Your task to perform on an android device: turn on notifications settings in the gmail app Image 0: 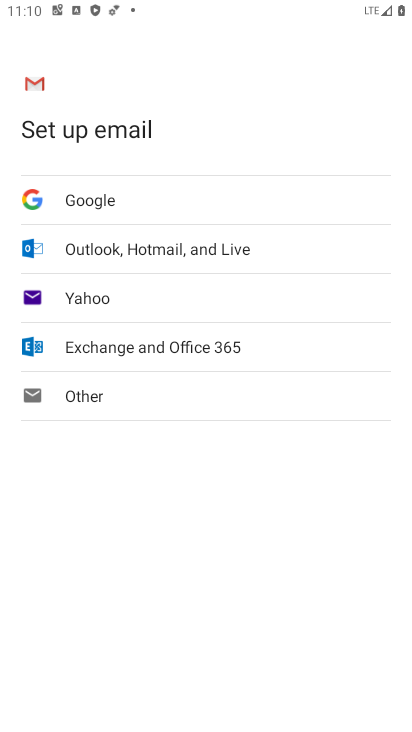
Step 0: press home button
Your task to perform on an android device: turn on notifications settings in the gmail app Image 1: 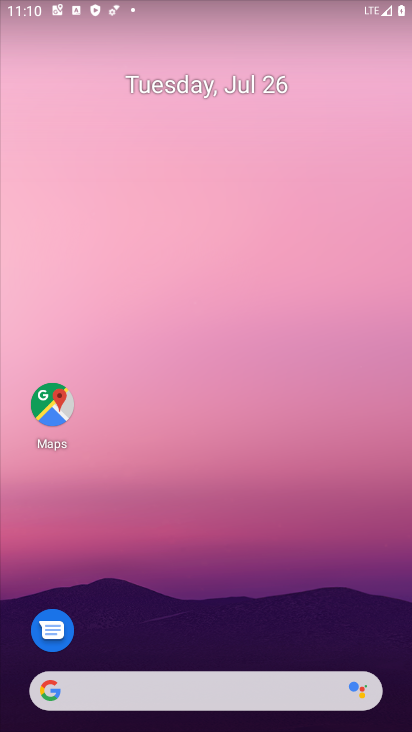
Step 1: drag from (302, 512) to (288, 37)
Your task to perform on an android device: turn on notifications settings in the gmail app Image 2: 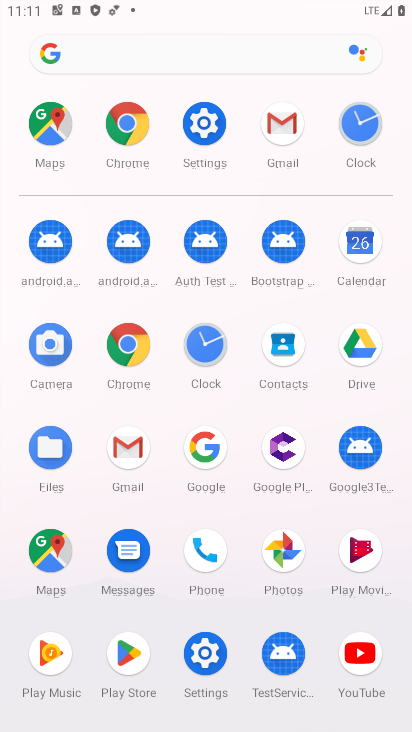
Step 2: click (275, 138)
Your task to perform on an android device: turn on notifications settings in the gmail app Image 3: 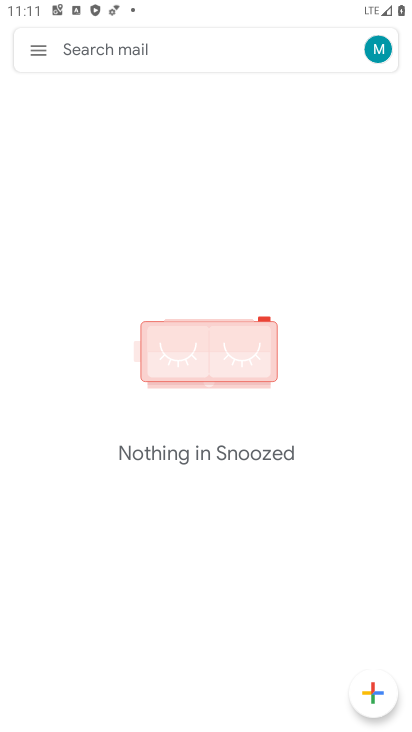
Step 3: click (55, 76)
Your task to perform on an android device: turn on notifications settings in the gmail app Image 4: 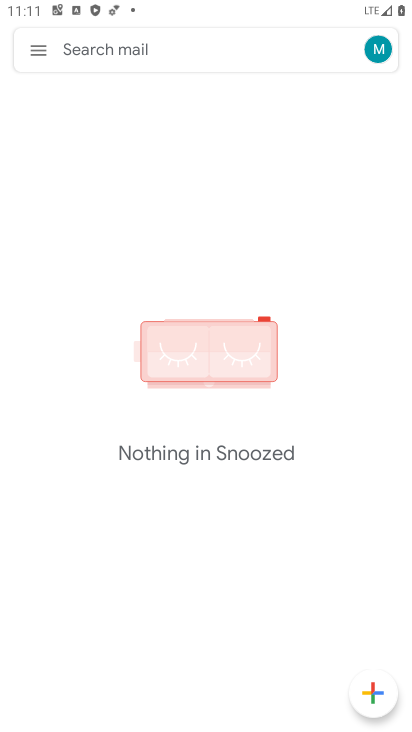
Step 4: click (55, 53)
Your task to perform on an android device: turn on notifications settings in the gmail app Image 5: 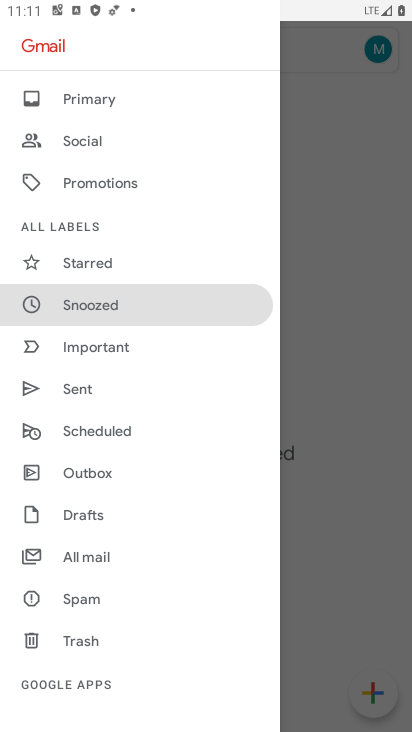
Step 5: drag from (129, 427) to (100, 115)
Your task to perform on an android device: turn on notifications settings in the gmail app Image 6: 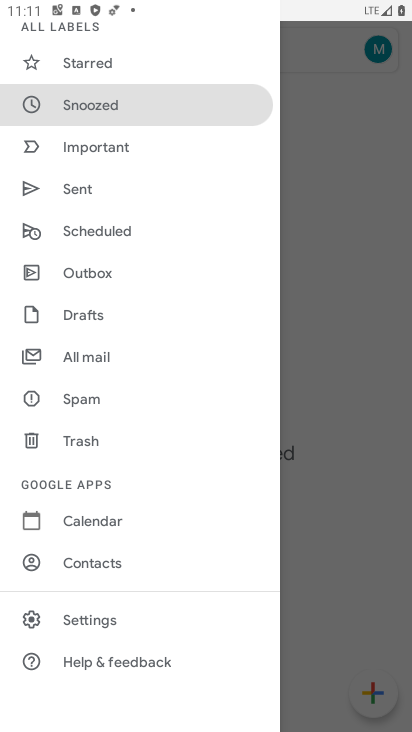
Step 6: click (86, 617)
Your task to perform on an android device: turn on notifications settings in the gmail app Image 7: 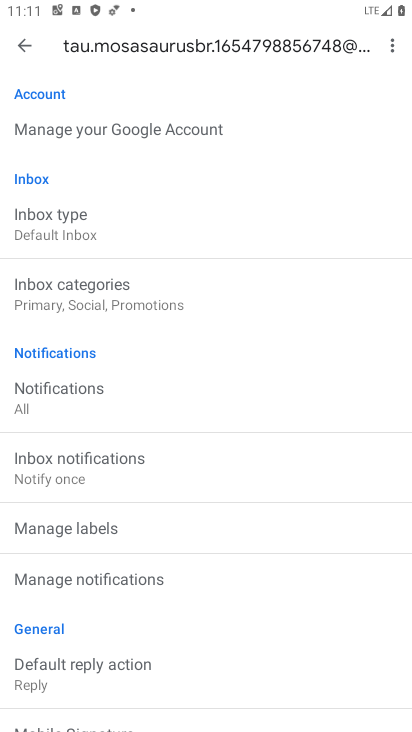
Step 7: click (93, 405)
Your task to perform on an android device: turn on notifications settings in the gmail app Image 8: 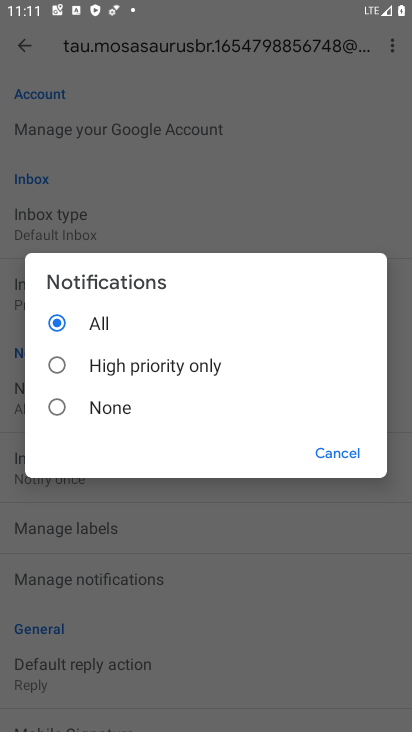
Step 8: task complete